Your task to perform on an android device: open the mobile data screen to see how much data has been used Image 0: 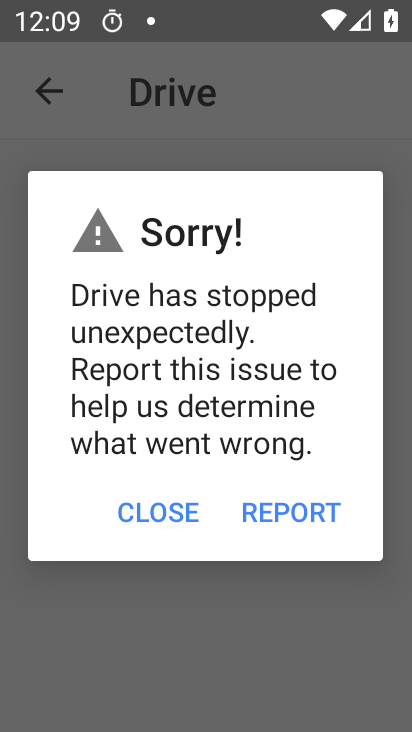
Step 0: press home button
Your task to perform on an android device: open the mobile data screen to see how much data has been used Image 1: 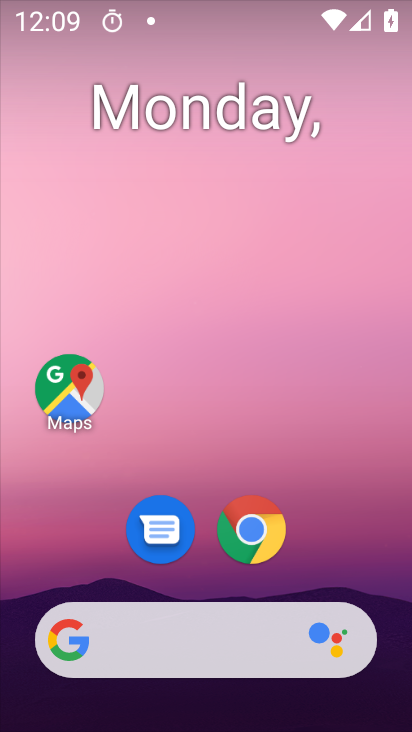
Step 1: drag from (240, 603) to (219, 153)
Your task to perform on an android device: open the mobile data screen to see how much data has been used Image 2: 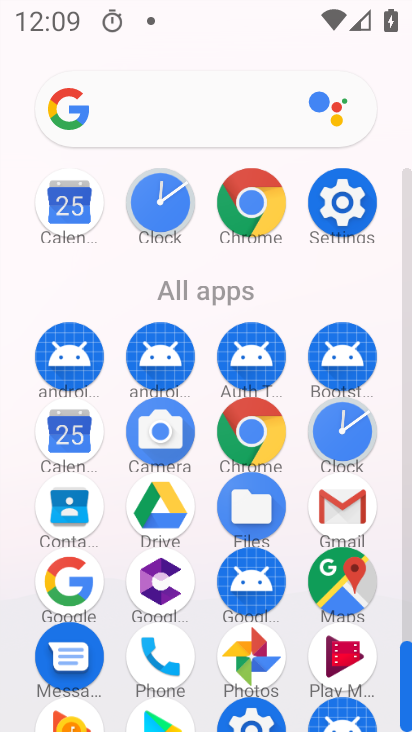
Step 2: click (338, 183)
Your task to perform on an android device: open the mobile data screen to see how much data has been used Image 3: 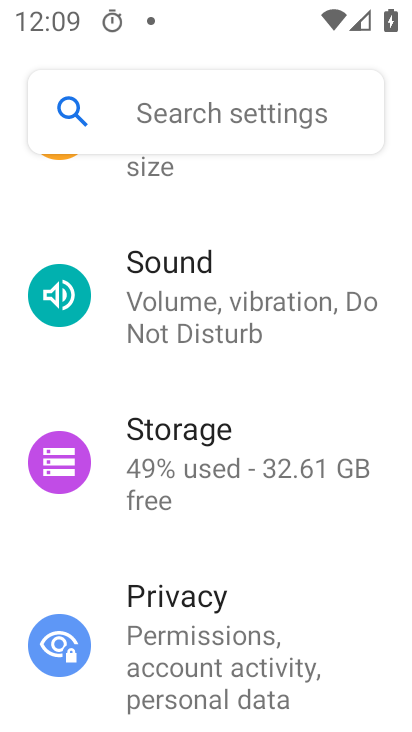
Step 3: drag from (186, 304) to (98, 725)
Your task to perform on an android device: open the mobile data screen to see how much data has been used Image 4: 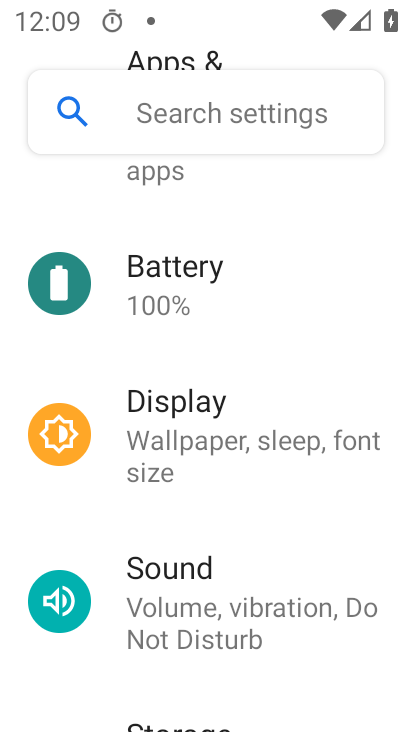
Step 4: drag from (242, 248) to (176, 584)
Your task to perform on an android device: open the mobile data screen to see how much data has been used Image 5: 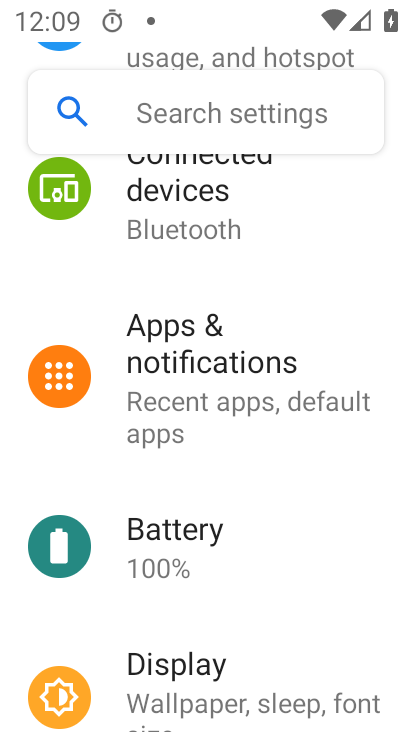
Step 5: drag from (239, 238) to (215, 651)
Your task to perform on an android device: open the mobile data screen to see how much data has been used Image 6: 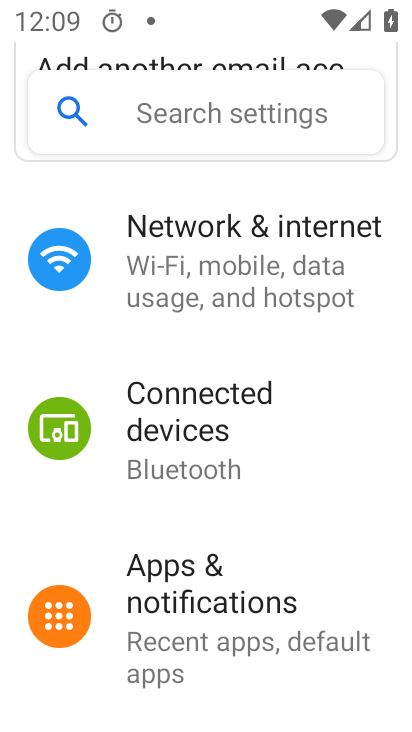
Step 6: click (166, 296)
Your task to perform on an android device: open the mobile data screen to see how much data has been used Image 7: 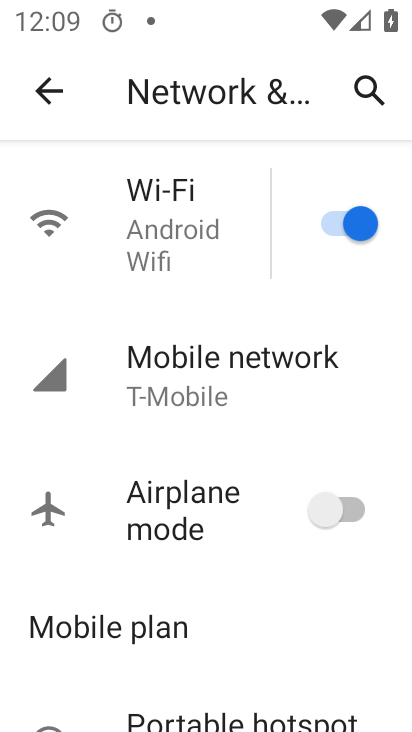
Step 7: click (229, 402)
Your task to perform on an android device: open the mobile data screen to see how much data has been used Image 8: 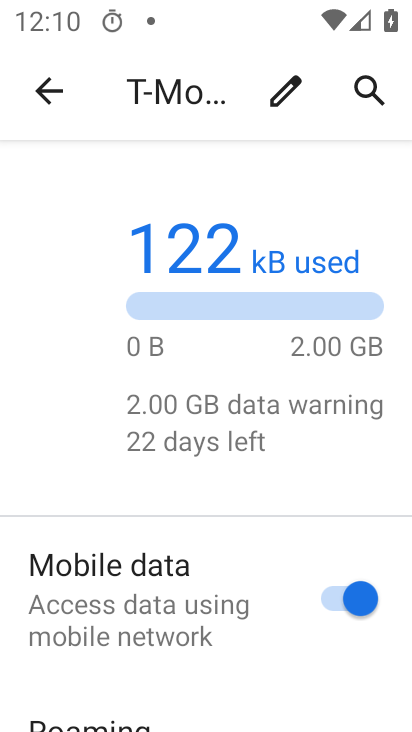
Step 8: task complete